Your task to perform on an android device: install app "ColorNote Notepad Notes" Image 0: 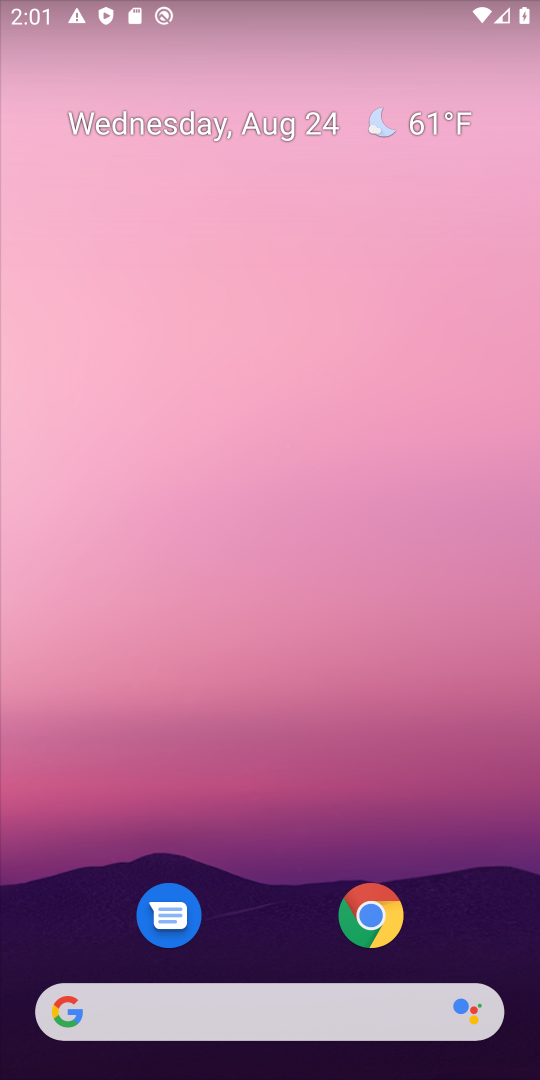
Step 0: drag from (279, 861) to (301, 331)
Your task to perform on an android device: install app "ColorNote Notepad Notes" Image 1: 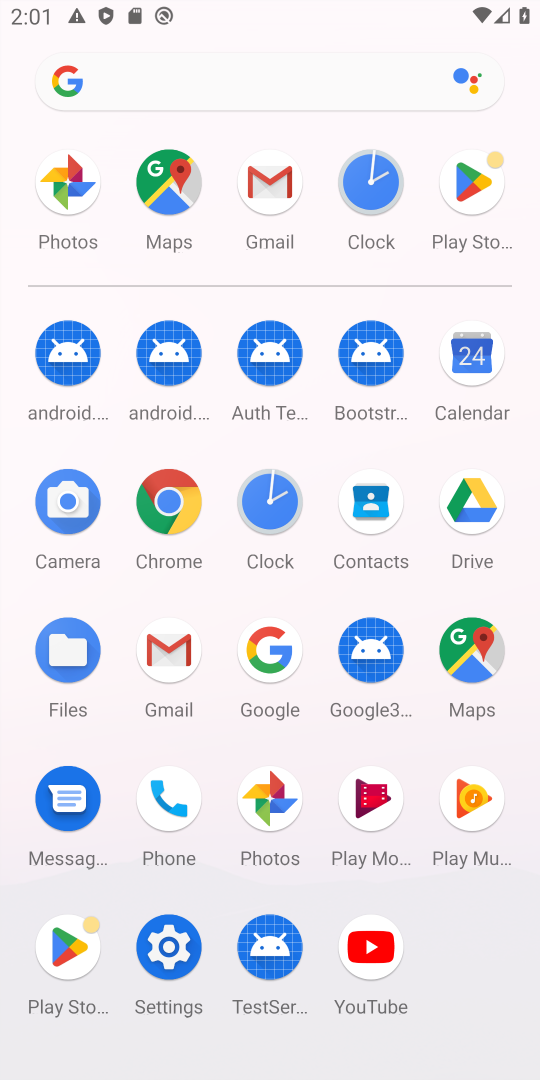
Step 1: click (480, 178)
Your task to perform on an android device: install app "ColorNote Notepad Notes" Image 2: 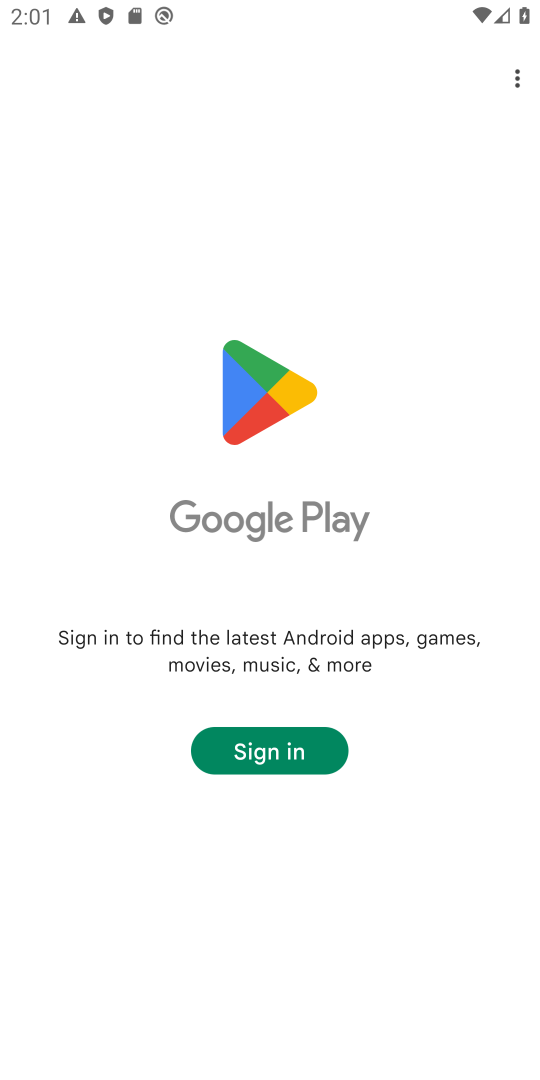
Step 2: task complete